Your task to perform on an android device: Go to battery settings Image 0: 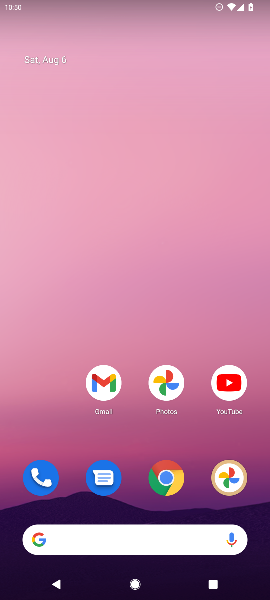
Step 0: drag from (131, 501) to (194, 6)
Your task to perform on an android device: Go to battery settings Image 1: 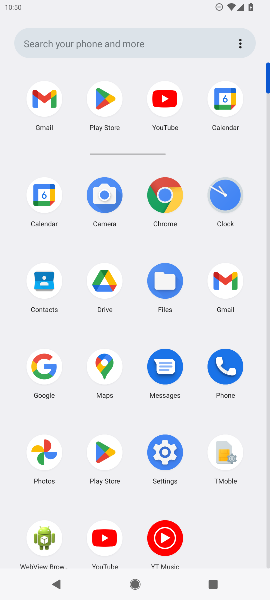
Step 1: click (169, 450)
Your task to perform on an android device: Go to battery settings Image 2: 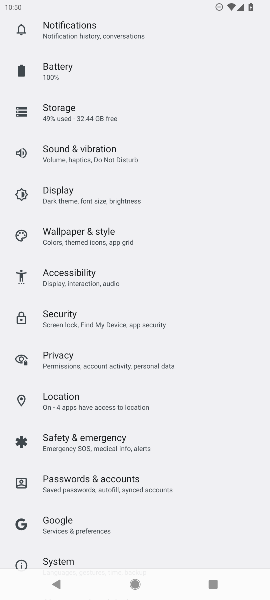
Step 2: click (59, 66)
Your task to perform on an android device: Go to battery settings Image 3: 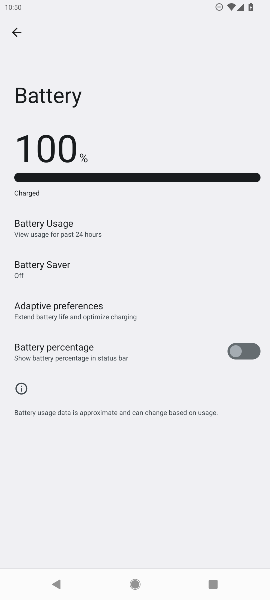
Step 3: task complete